Your task to perform on an android device: turn off location Image 0: 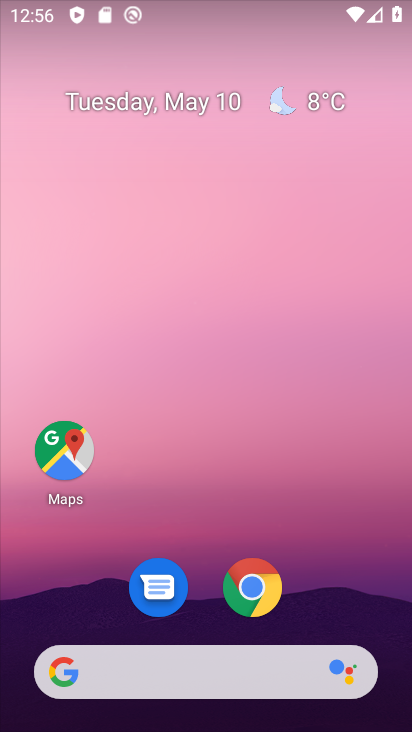
Step 0: drag from (340, 574) to (266, 52)
Your task to perform on an android device: turn off location Image 1: 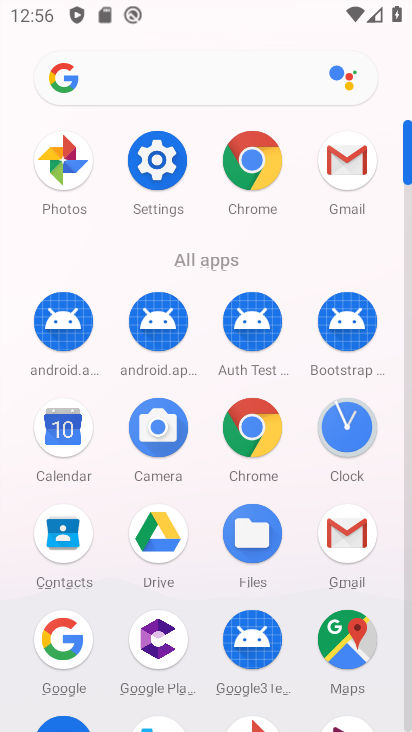
Step 1: click (157, 186)
Your task to perform on an android device: turn off location Image 2: 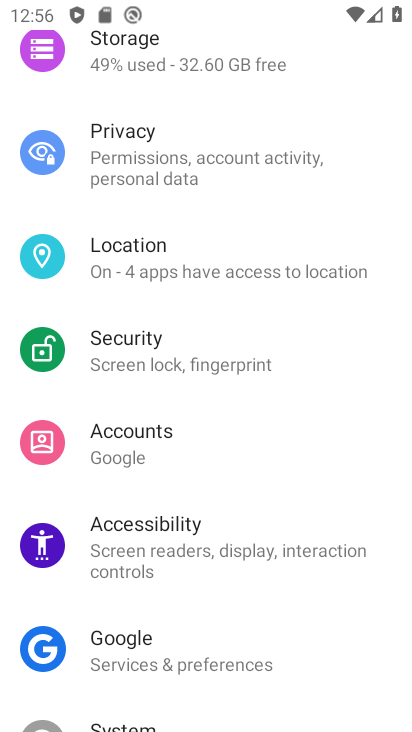
Step 2: drag from (216, 641) to (186, 337)
Your task to perform on an android device: turn off location Image 3: 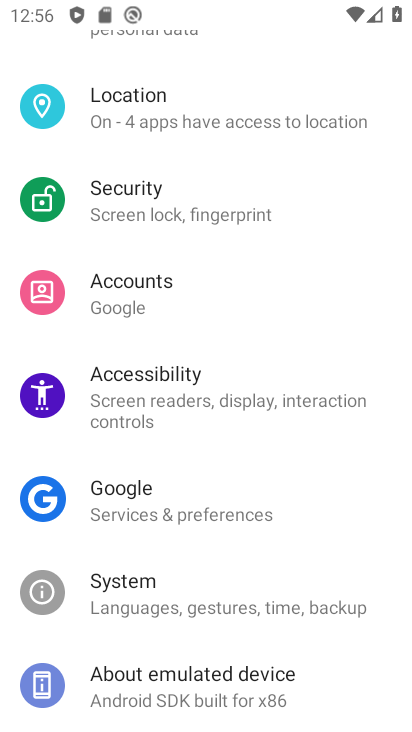
Step 3: click (138, 134)
Your task to perform on an android device: turn off location Image 4: 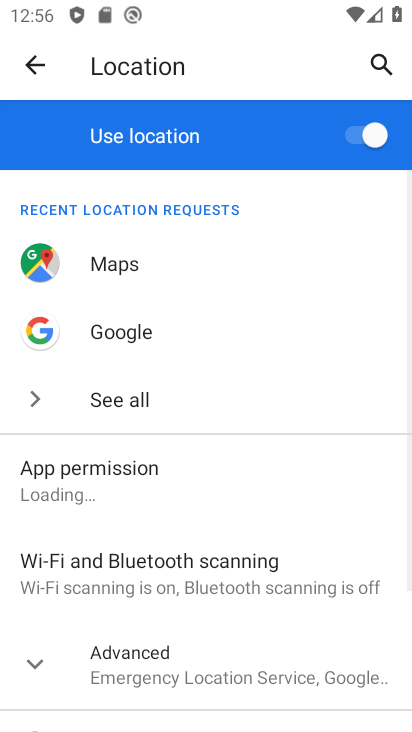
Step 4: click (369, 127)
Your task to perform on an android device: turn off location Image 5: 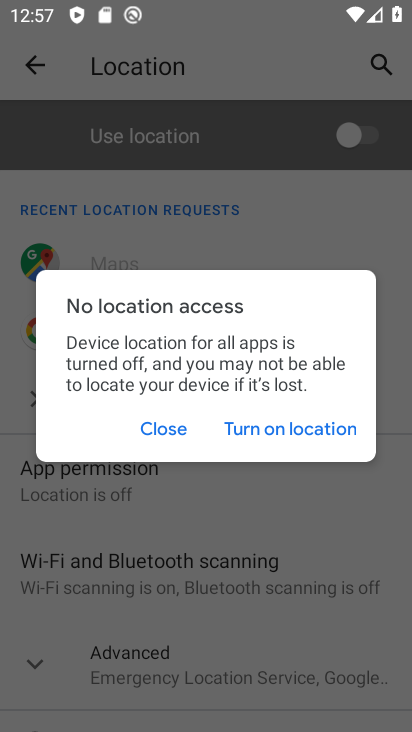
Step 5: task complete